Your task to perform on an android device: Go to accessibility settings Image 0: 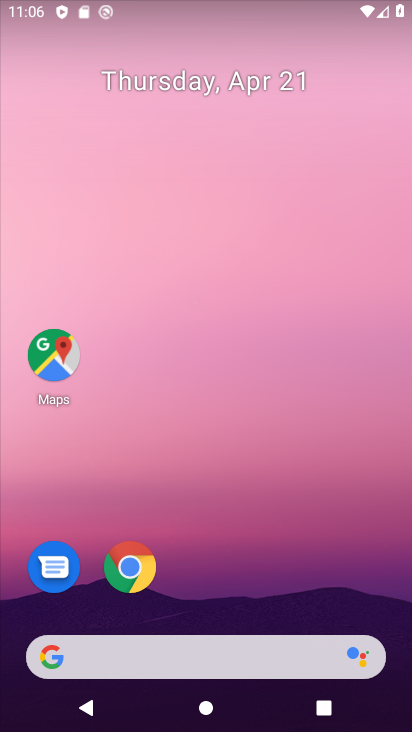
Step 0: click (350, 153)
Your task to perform on an android device: Go to accessibility settings Image 1: 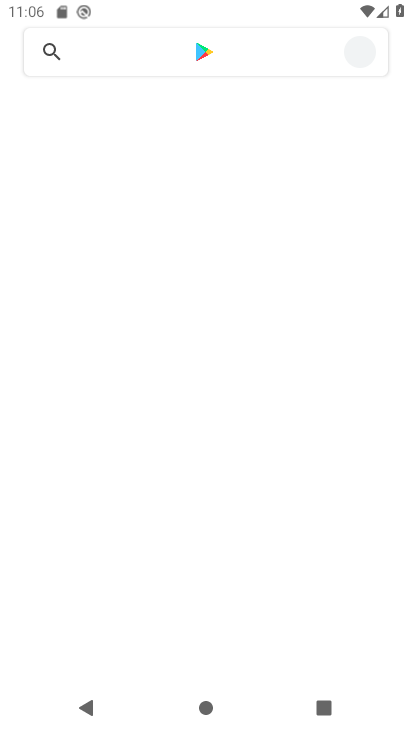
Step 1: press home button
Your task to perform on an android device: Go to accessibility settings Image 2: 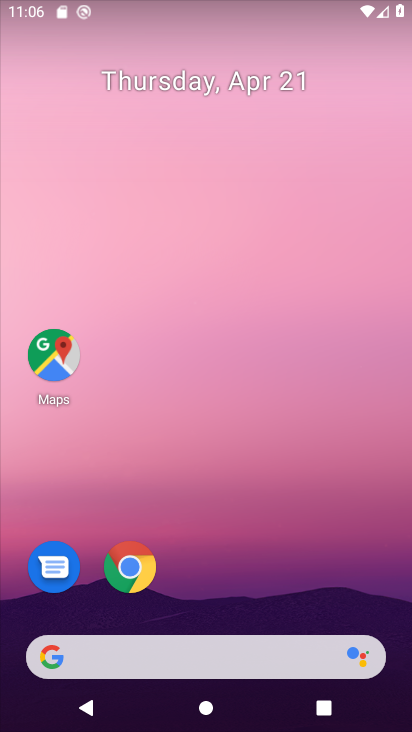
Step 2: drag from (364, 496) to (362, 157)
Your task to perform on an android device: Go to accessibility settings Image 3: 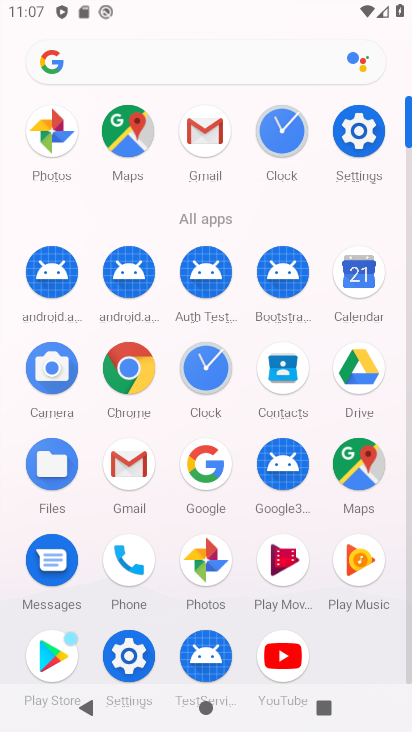
Step 3: click (364, 146)
Your task to perform on an android device: Go to accessibility settings Image 4: 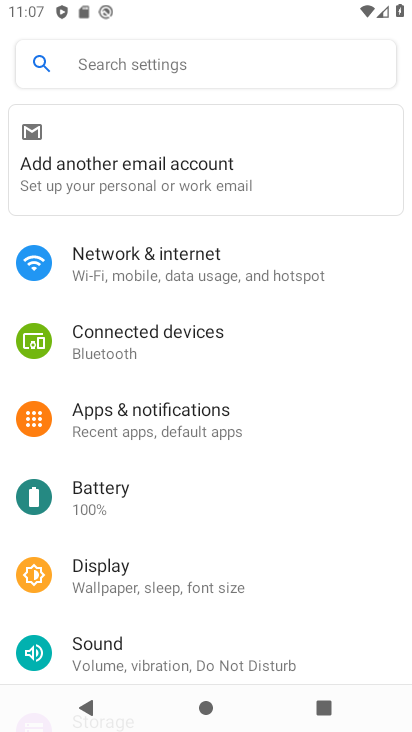
Step 4: drag from (284, 439) to (309, 178)
Your task to perform on an android device: Go to accessibility settings Image 5: 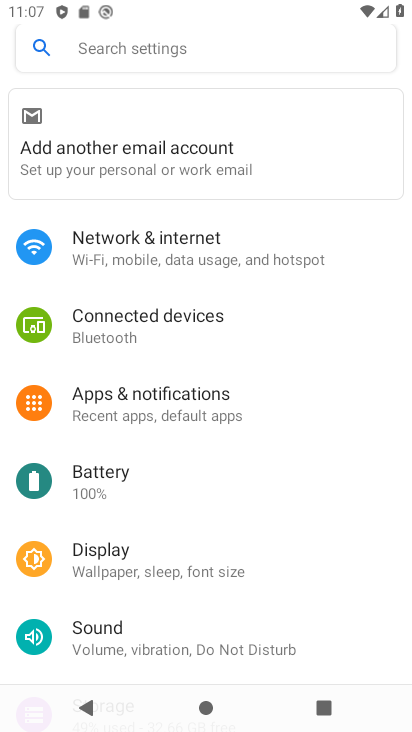
Step 5: drag from (328, 543) to (322, 277)
Your task to perform on an android device: Go to accessibility settings Image 6: 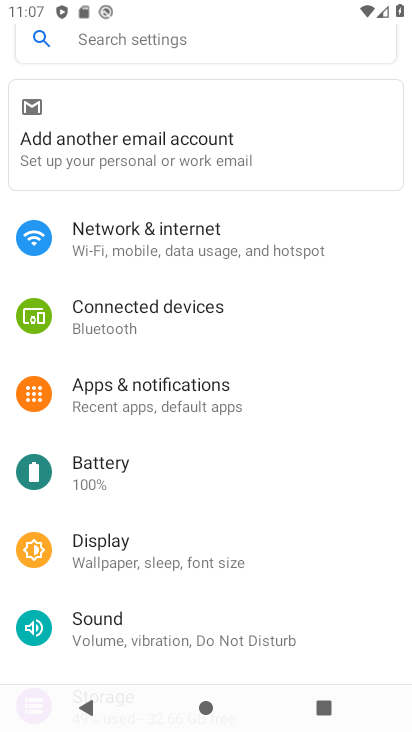
Step 6: drag from (322, 547) to (353, 232)
Your task to perform on an android device: Go to accessibility settings Image 7: 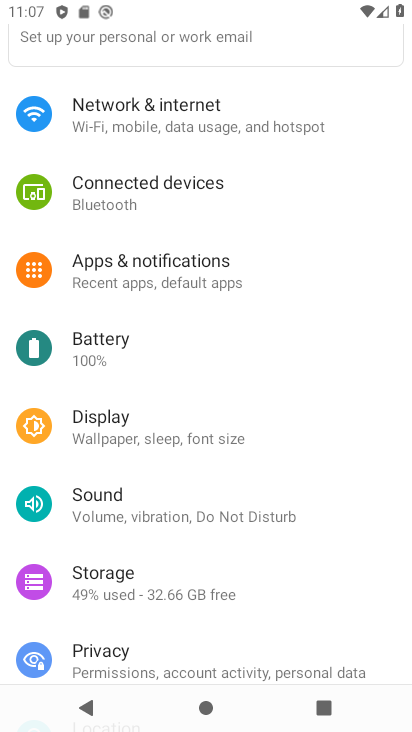
Step 7: drag from (318, 583) to (345, 263)
Your task to perform on an android device: Go to accessibility settings Image 8: 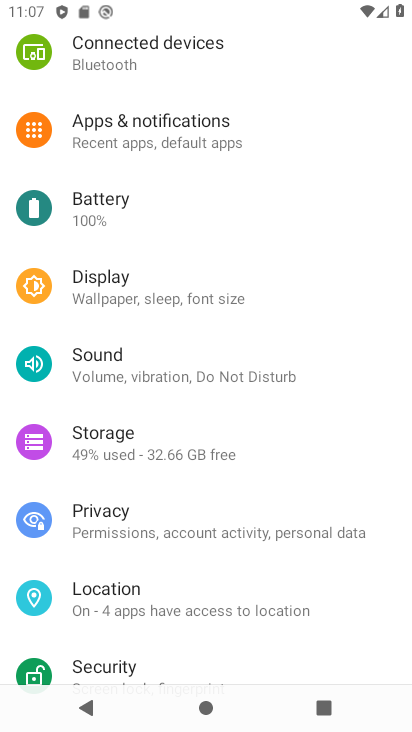
Step 8: drag from (352, 592) to (346, 241)
Your task to perform on an android device: Go to accessibility settings Image 9: 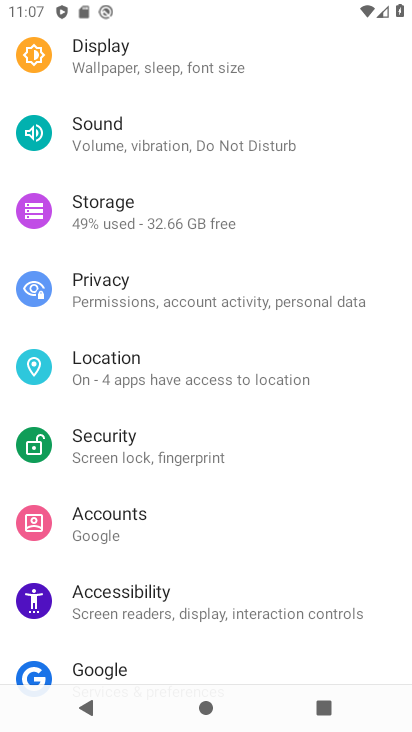
Step 9: click (137, 601)
Your task to perform on an android device: Go to accessibility settings Image 10: 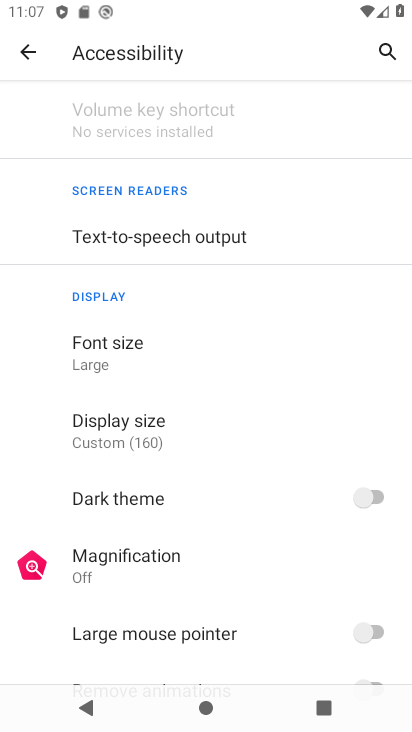
Step 10: task complete